Your task to perform on an android device: turn off data saver in the chrome app Image 0: 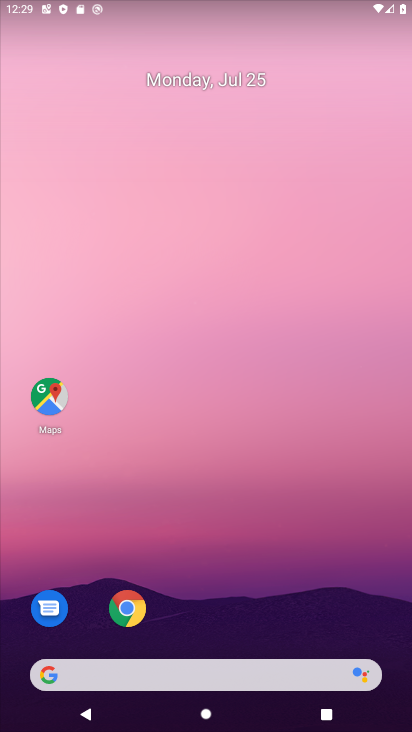
Step 0: drag from (230, 609) to (276, 127)
Your task to perform on an android device: turn off data saver in the chrome app Image 1: 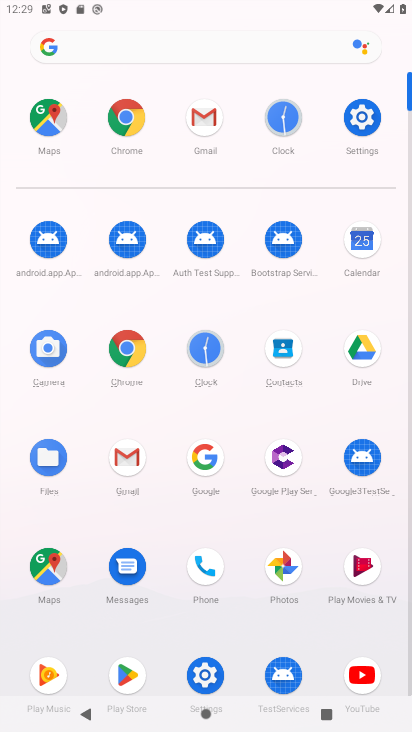
Step 1: click (119, 359)
Your task to perform on an android device: turn off data saver in the chrome app Image 2: 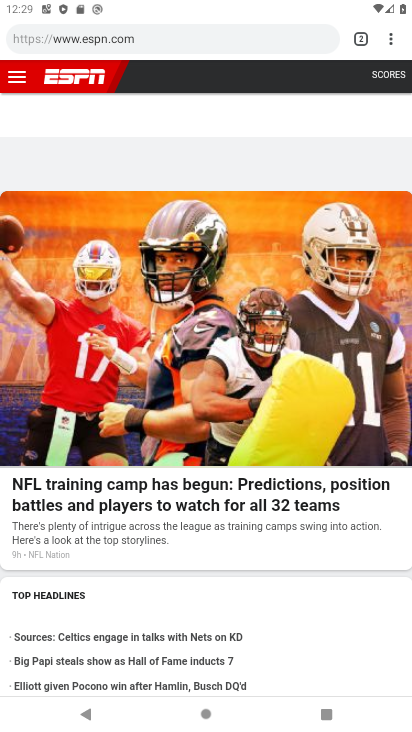
Step 2: click (393, 41)
Your task to perform on an android device: turn off data saver in the chrome app Image 3: 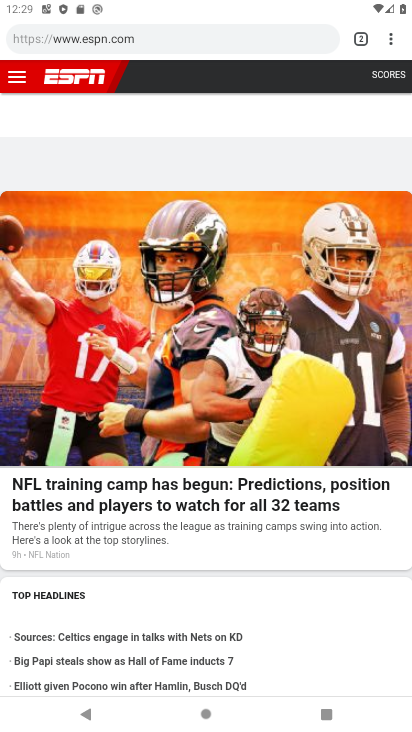
Step 3: click (396, 40)
Your task to perform on an android device: turn off data saver in the chrome app Image 4: 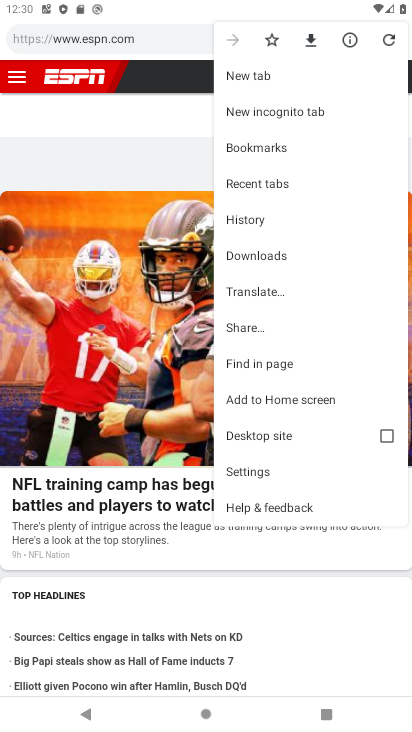
Step 4: click (274, 472)
Your task to perform on an android device: turn off data saver in the chrome app Image 5: 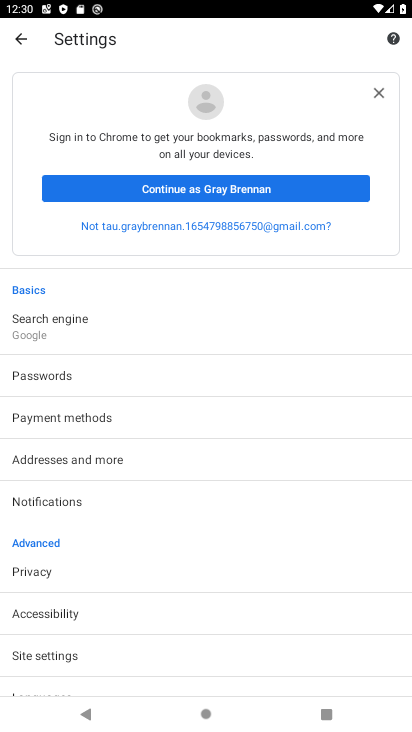
Step 5: drag from (159, 594) to (196, 252)
Your task to perform on an android device: turn off data saver in the chrome app Image 6: 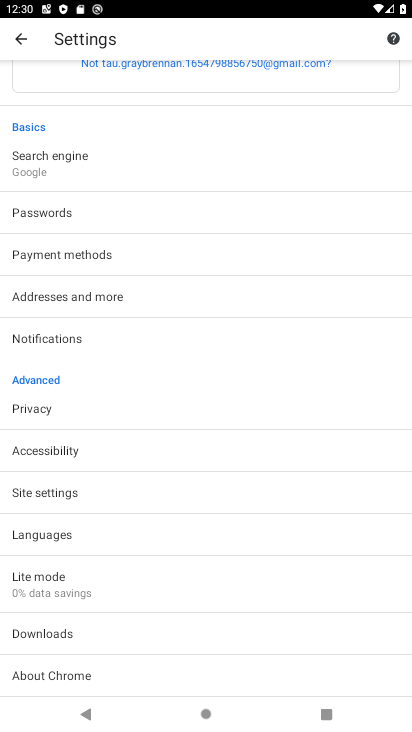
Step 6: click (111, 589)
Your task to perform on an android device: turn off data saver in the chrome app Image 7: 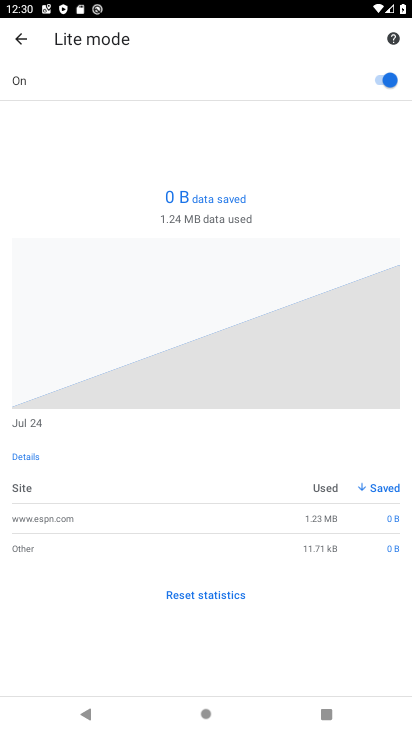
Step 7: click (372, 184)
Your task to perform on an android device: turn off data saver in the chrome app Image 8: 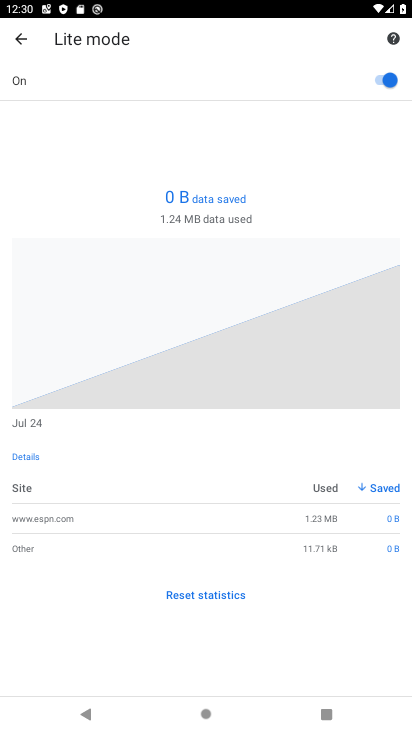
Step 8: click (392, 77)
Your task to perform on an android device: turn off data saver in the chrome app Image 9: 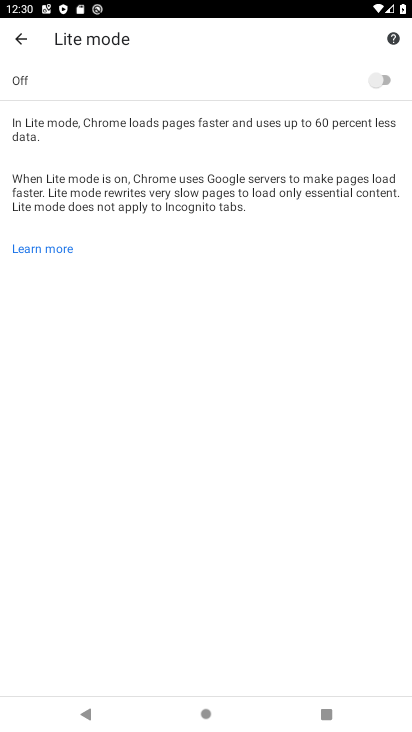
Step 9: task complete